Your task to perform on an android device: Go to eBay Image 0: 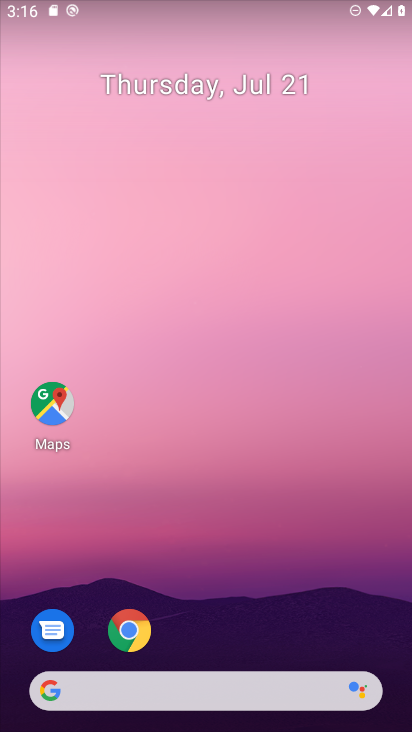
Step 0: click (136, 631)
Your task to perform on an android device: Go to eBay Image 1: 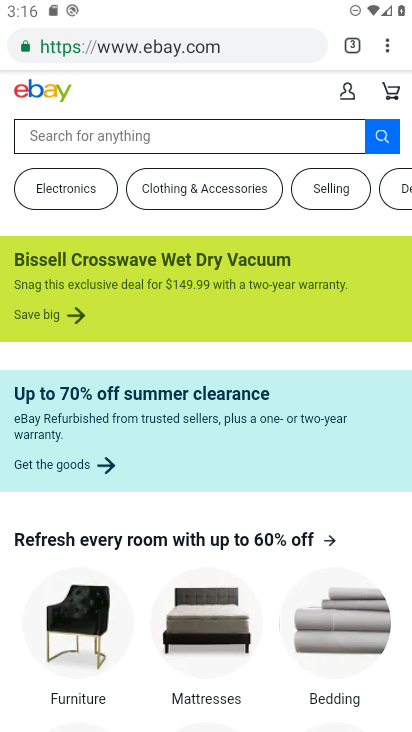
Step 1: task complete